Your task to perform on an android device: toggle priority inbox in the gmail app Image 0: 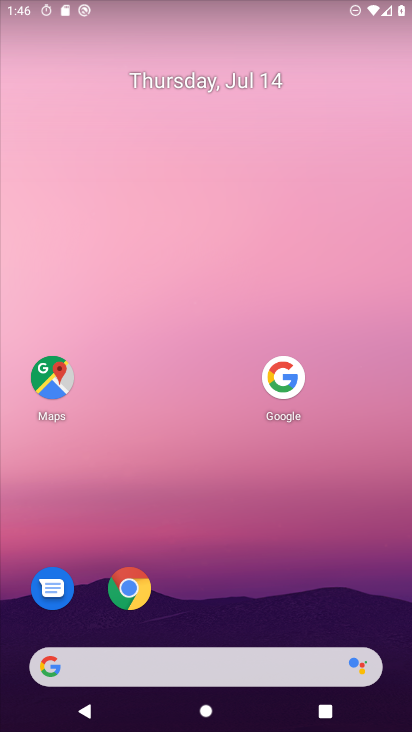
Step 0: press home button
Your task to perform on an android device: toggle priority inbox in the gmail app Image 1: 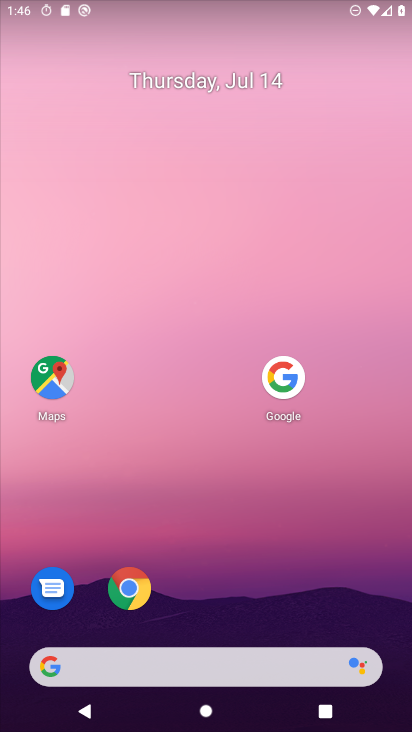
Step 1: drag from (162, 660) to (305, 185)
Your task to perform on an android device: toggle priority inbox in the gmail app Image 2: 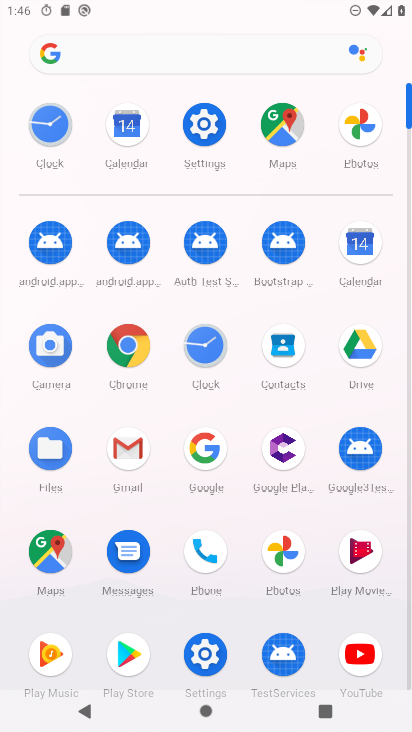
Step 2: click (131, 457)
Your task to perform on an android device: toggle priority inbox in the gmail app Image 3: 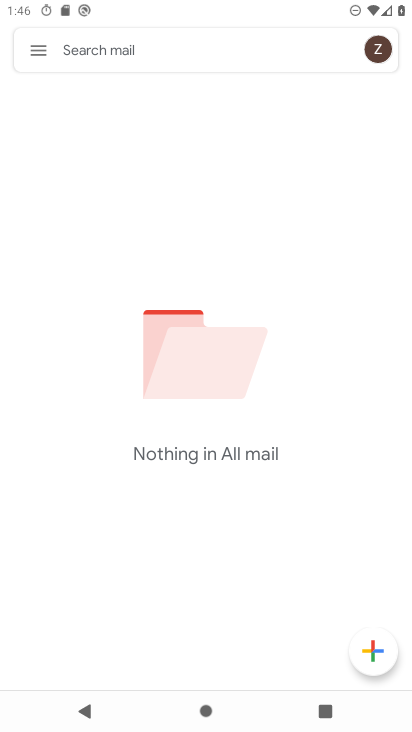
Step 3: click (38, 57)
Your task to perform on an android device: toggle priority inbox in the gmail app Image 4: 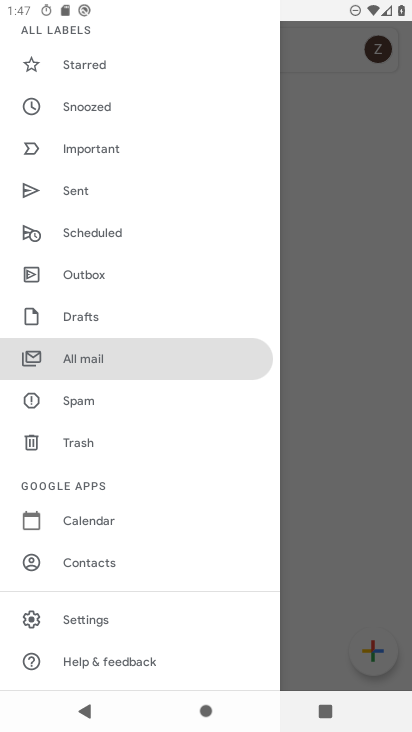
Step 4: click (94, 616)
Your task to perform on an android device: toggle priority inbox in the gmail app Image 5: 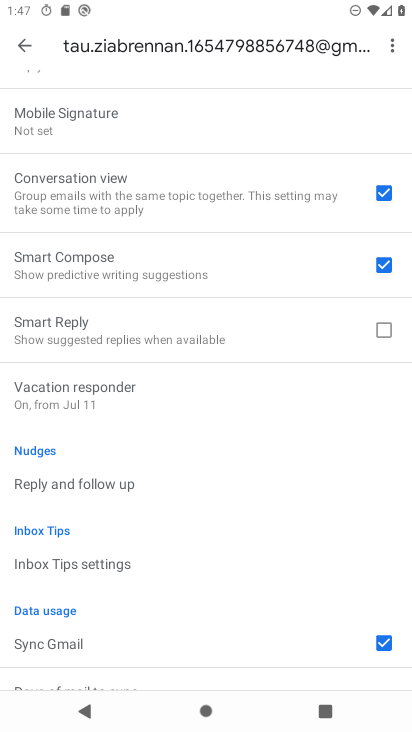
Step 5: drag from (233, 135) to (244, 609)
Your task to perform on an android device: toggle priority inbox in the gmail app Image 6: 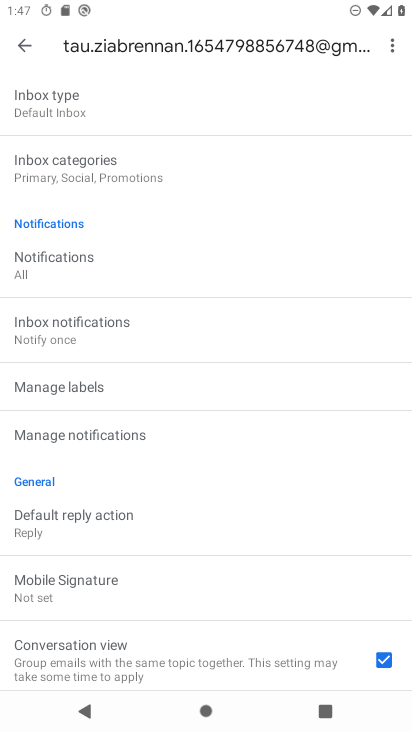
Step 6: drag from (232, 191) to (209, 520)
Your task to perform on an android device: toggle priority inbox in the gmail app Image 7: 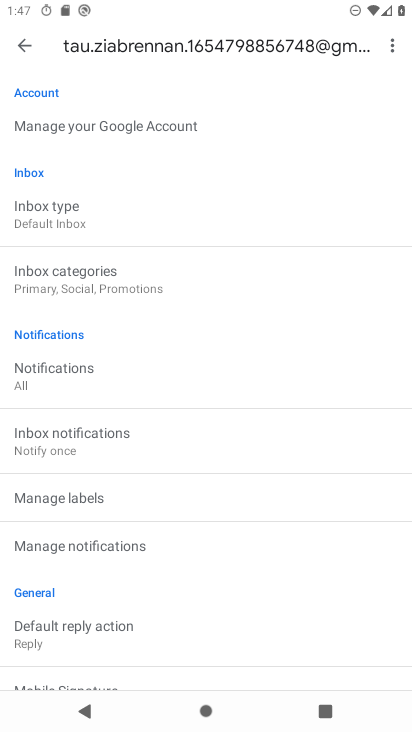
Step 7: click (53, 218)
Your task to perform on an android device: toggle priority inbox in the gmail app Image 8: 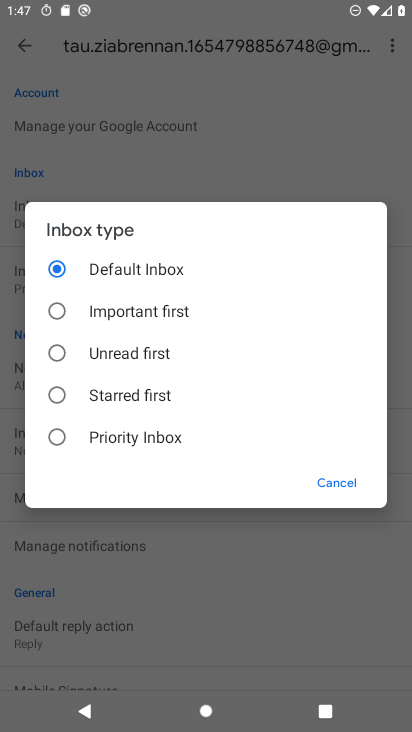
Step 8: click (59, 436)
Your task to perform on an android device: toggle priority inbox in the gmail app Image 9: 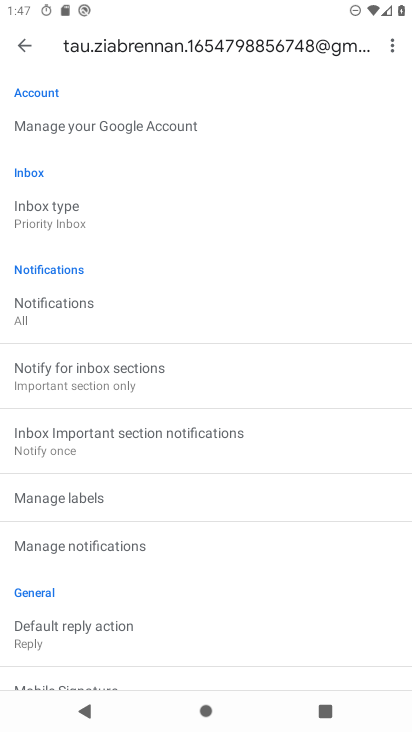
Step 9: task complete